Your task to perform on an android device: change notification settings in the gmail app Image 0: 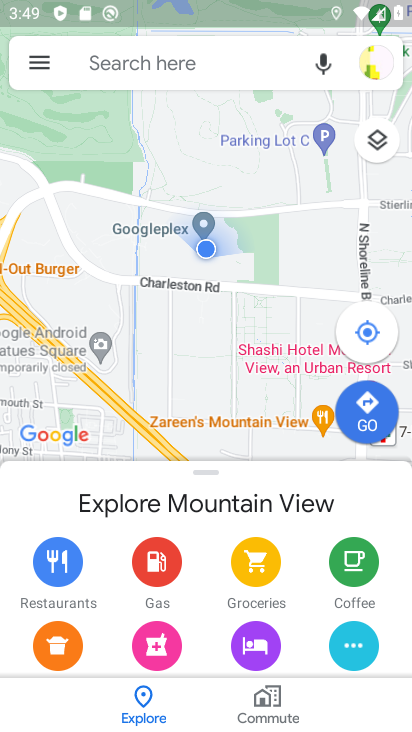
Step 0: press home button
Your task to perform on an android device: change notification settings in the gmail app Image 1: 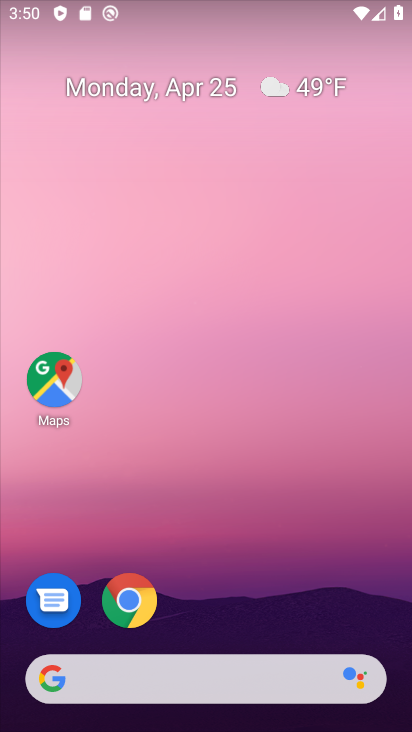
Step 1: drag from (236, 606) to (257, 1)
Your task to perform on an android device: change notification settings in the gmail app Image 2: 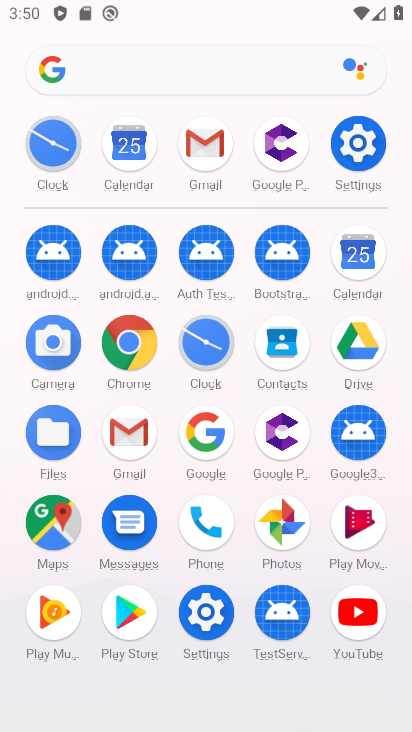
Step 2: click (204, 139)
Your task to perform on an android device: change notification settings in the gmail app Image 3: 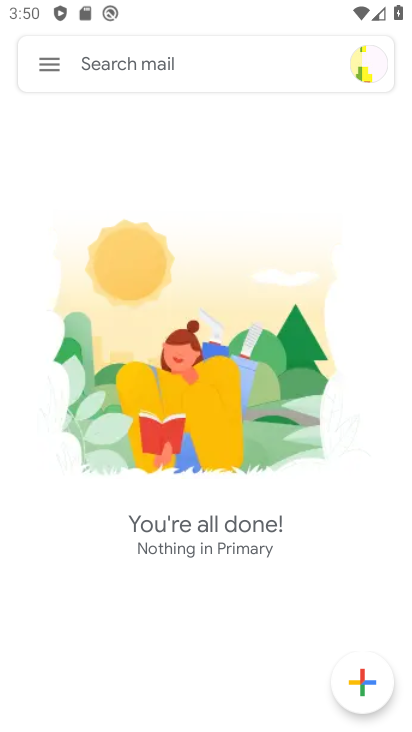
Step 3: click (47, 65)
Your task to perform on an android device: change notification settings in the gmail app Image 4: 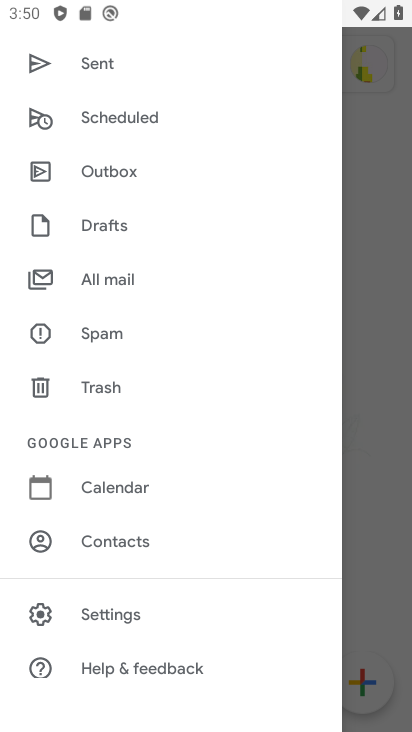
Step 4: click (117, 609)
Your task to perform on an android device: change notification settings in the gmail app Image 5: 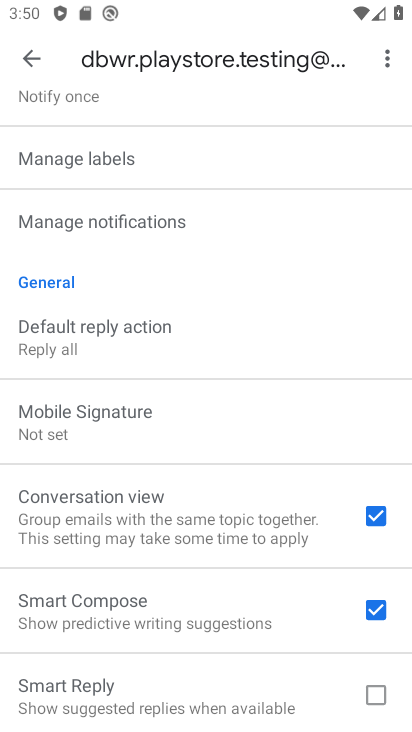
Step 5: click (155, 214)
Your task to perform on an android device: change notification settings in the gmail app Image 6: 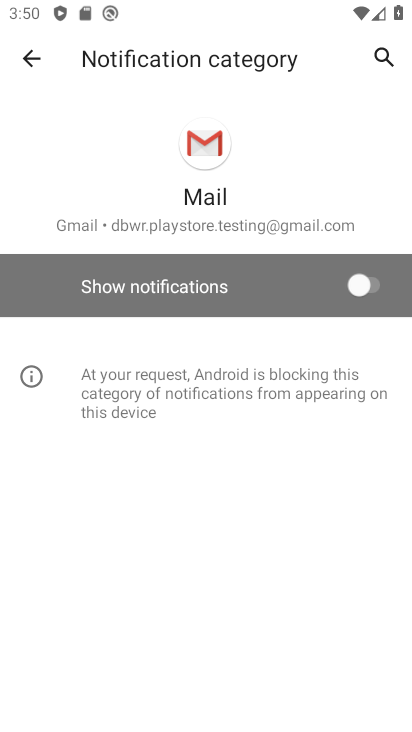
Step 6: click (362, 271)
Your task to perform on an android device: change notification settings in the gmail app Image 7: 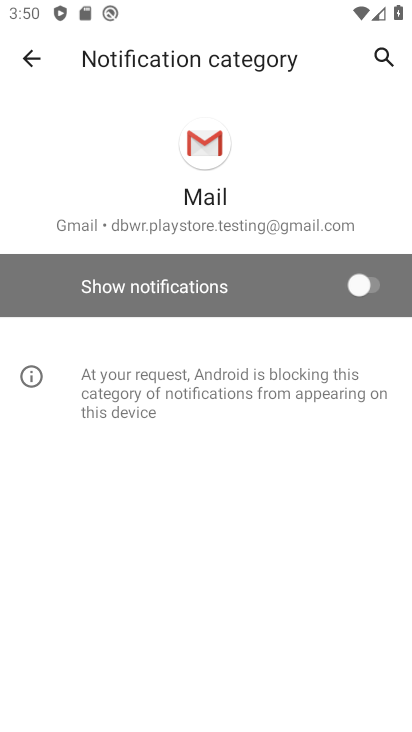
Step 7: click (368, 279)
Your task to perform on an android device: change notification settings in the gmail app Image 8: 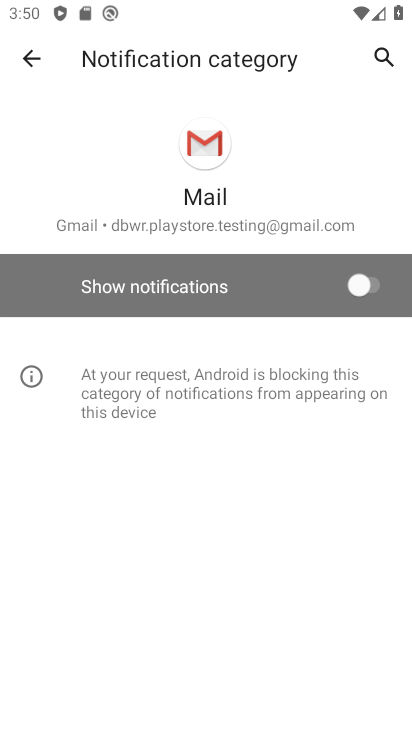
Step 8: click (38, 52)
Your task to perform on an android device: change notification settings in the gmail app Image 9: 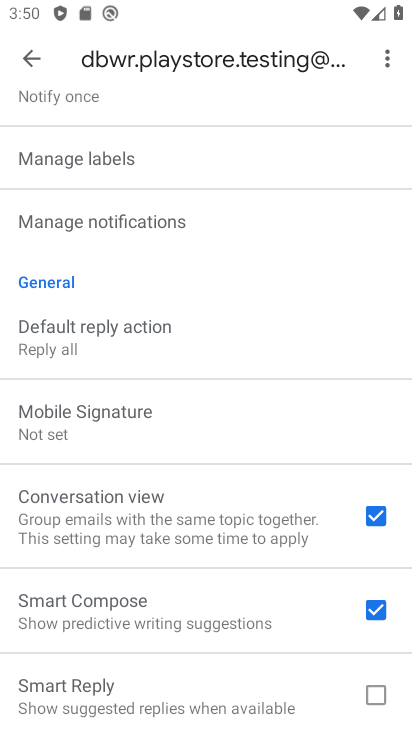
Step 9: click (33, 50)
Your task to perform on an android device: change notification settings in the gmail app Image 10: 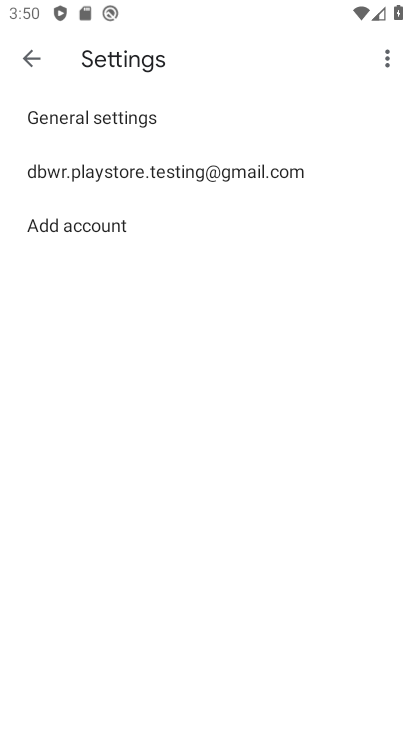
Step 10: click (83, 109)
Your task to perform on an android device: change notification settings in the gmail app Image 11: 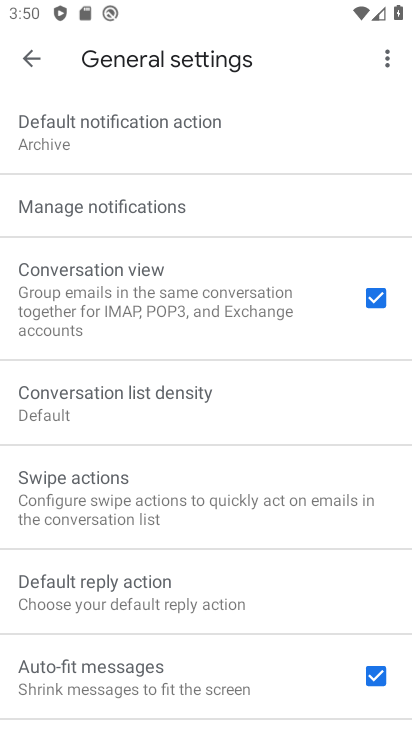
Step 11: click (157, 197)
Your task to perform on an android device: change notification settings in the gmail app Image 12: 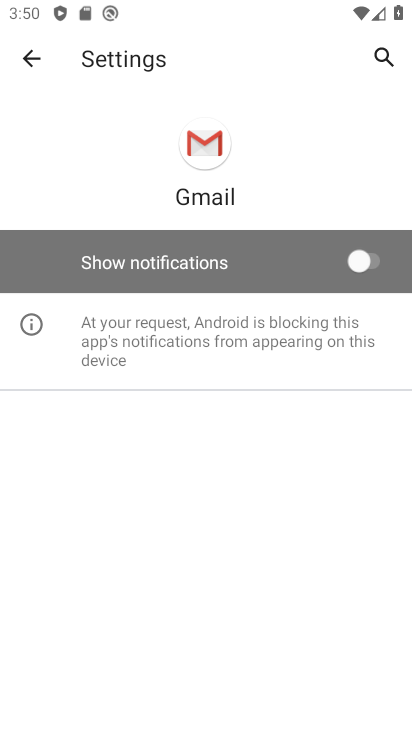
Step 12: click (378, 257)
Your task to perform on an android device: change notification settings in the gmail app Image 13: 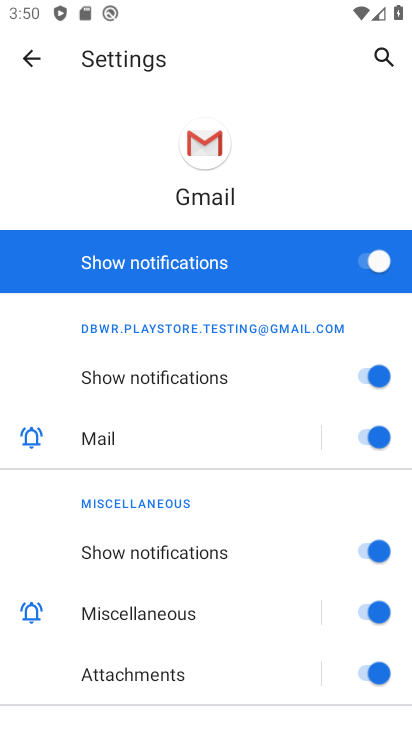
Step 13: task complete